Your task to perform on an android device: all mails in gmail Image 0: 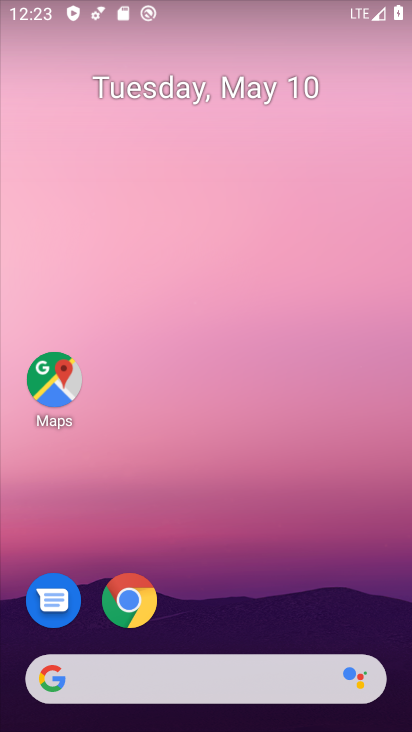
Step 0: drag from (199, 639) to (320, 137)
Your task to perform on an android device: all mails in gmail Image 1: 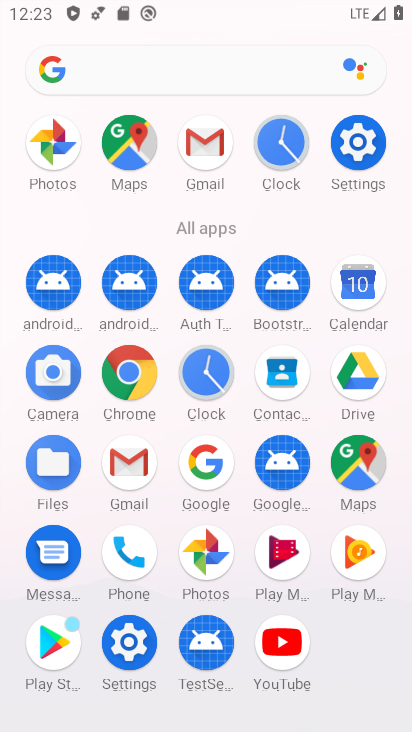
Step 1: click (133, 469)
Your task to perform on an android device: all mails in gmail Image 2: 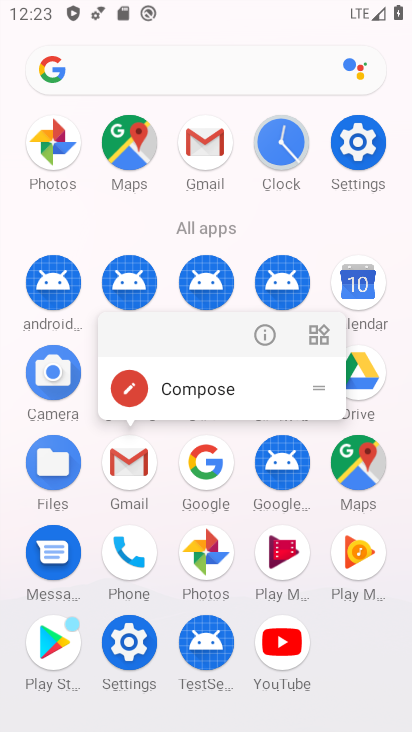
Step 2: click (116, 466)
Your task to perform on an android device: all mails in gmail Image 3: 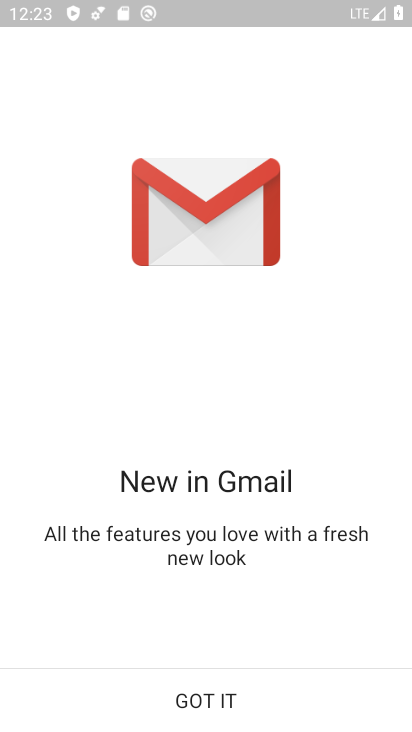
Step 3: click (192, 714)
Your task to perform on an android device: all mails in gmail Image 4: 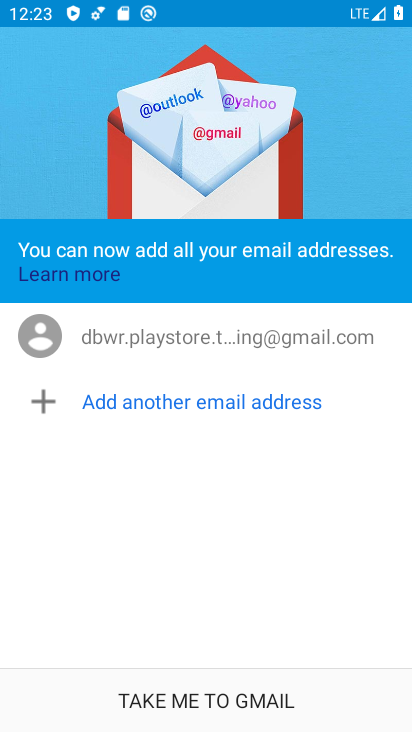
Step 4: click (192, 712)
Your task to perform on an android device: all mails in gmail Image 5: 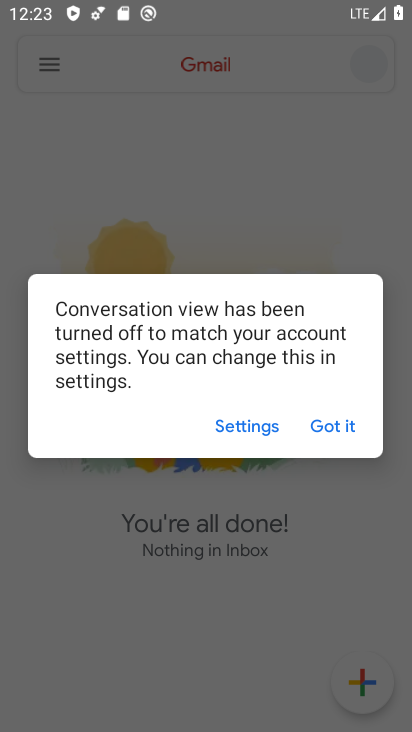
Step 5: click (343, 422)
Your task to perform on an android device: all mails in gmail Image 6: 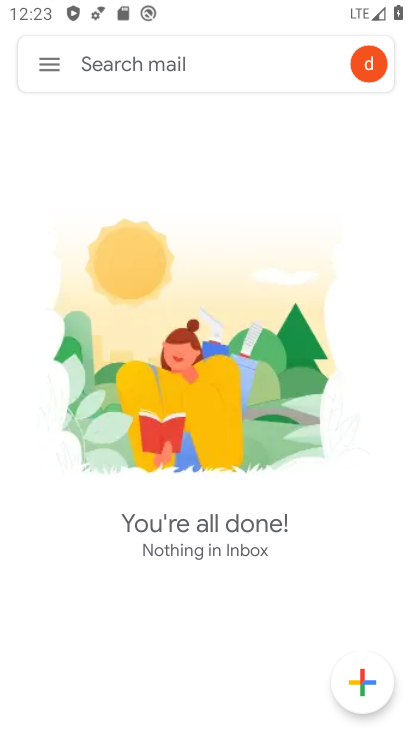
Step 6: click (52, 65)
Your task to perform on an android device: all mails in gmail Image 7: 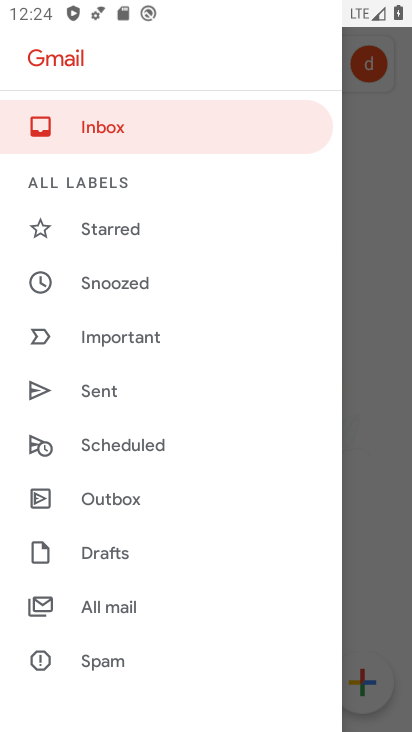
Step 7: click (118, 612)
Your task to perform on an android device: all mails in gmail Image 8: 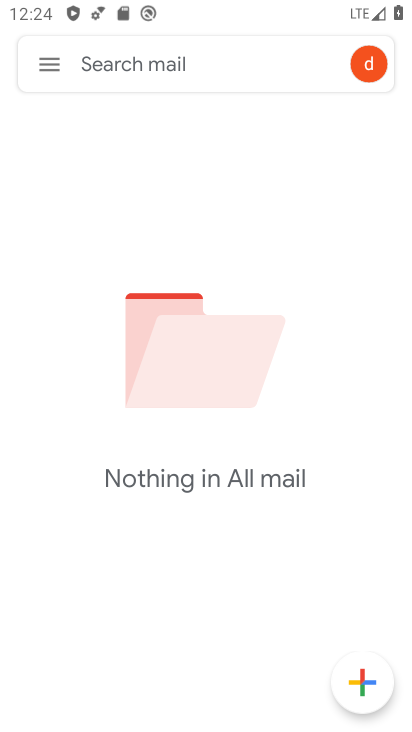
Step 8: task complete